Your task to perform on an android device: Go to privacy settings Image 0: 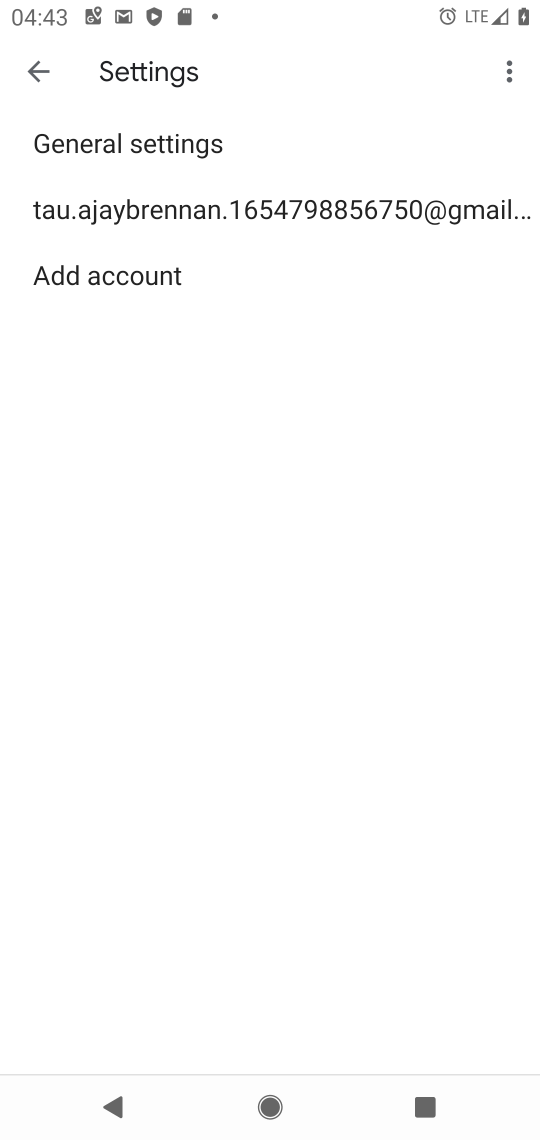
Step 0: press back button
Your task to perform on an android device: Go to privacy settings Image 1: 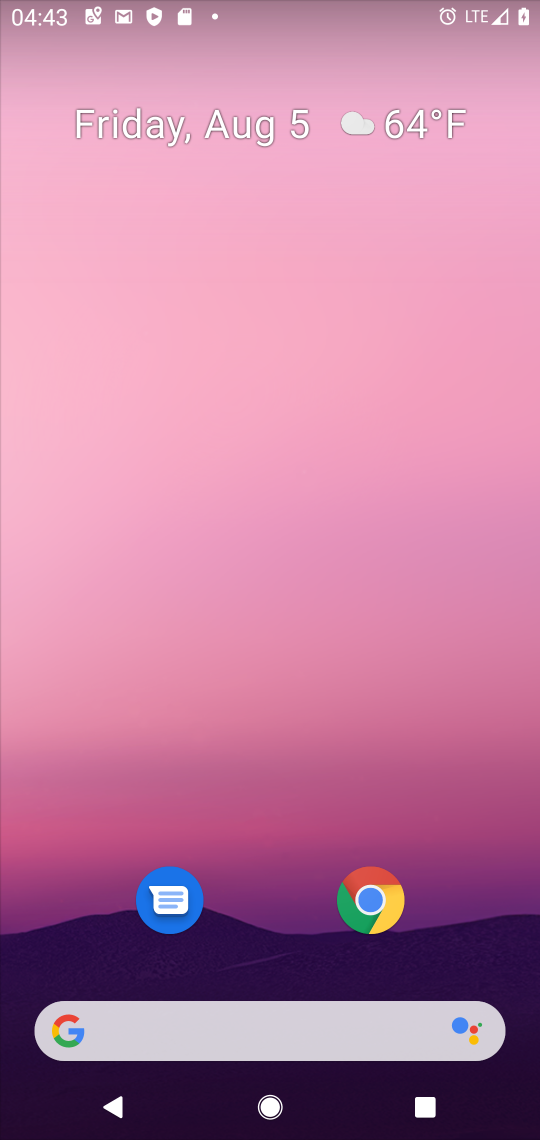
Step 1: drag from (243, 960) to (281, 113)
Your task to perform on an android device: Go to privacy settings Image 2: 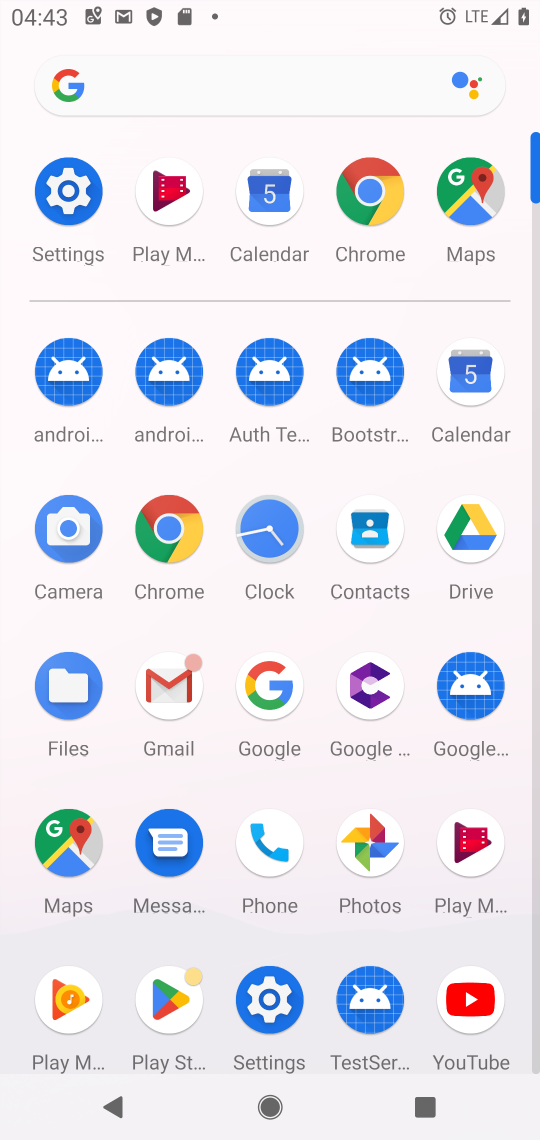
Step 2: click (67, 174)
Your task to perform on an android device: Go to privacy settings Image 3: 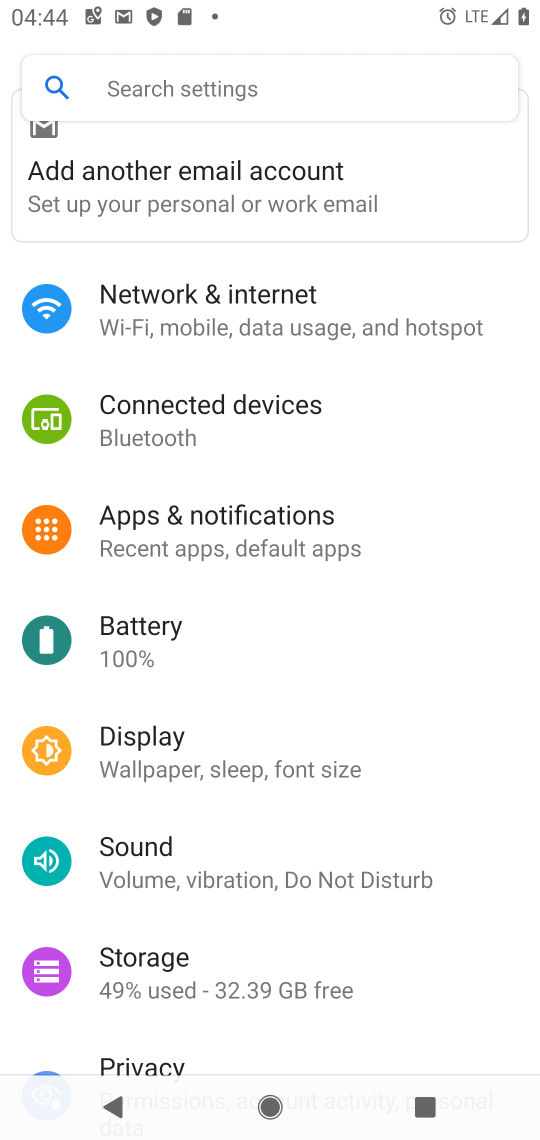
Step 3: click (180, 1057)
Your task to perform on an android device: Go to privacy settings Image 4: 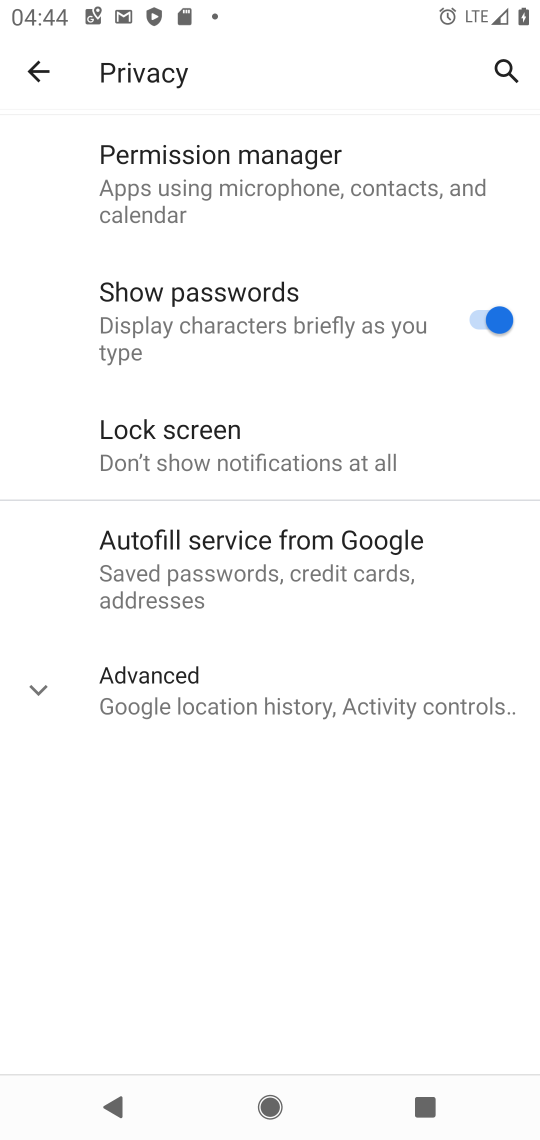
Step 4: task complete